Your task to perform on an android device: Go to ESPN.com Image 0: 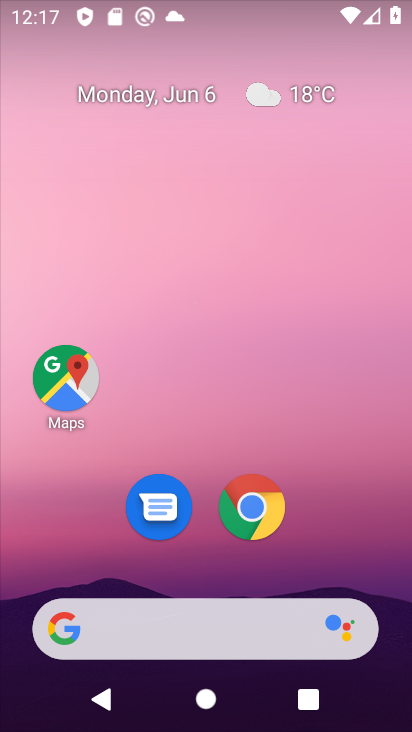
Step 0: click (252, 507)
Your task to perform on an android device: Go to ESPN.com Image 1: 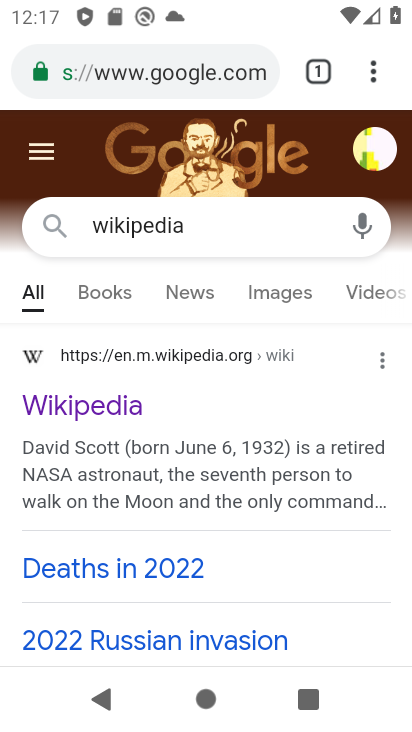
Step 1: click (149, 64)
Your task to perform on an android device: Go to ESPN.com Image 2: 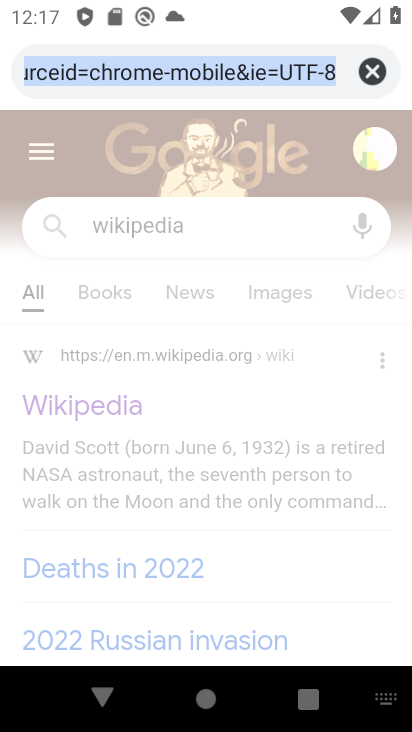
Step 2: type ""
Your task to perform on an android device: Go to ESPN.com Image 3: 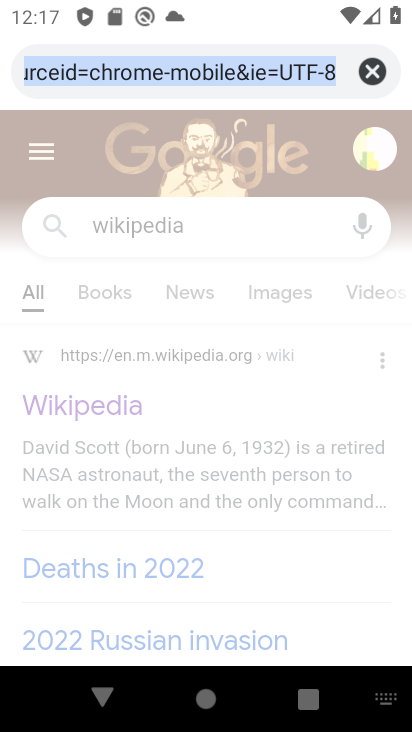
Step 3: type "ESPN.com"
Your task to perform on an android device: Go to ESPN.com Image 4: 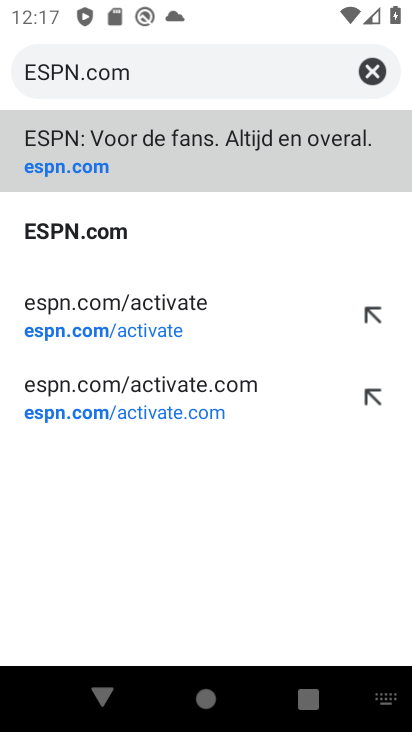
Step 4: click (131, 165)
Your task to perform on an android device: Go to ESPN.com Image 5: 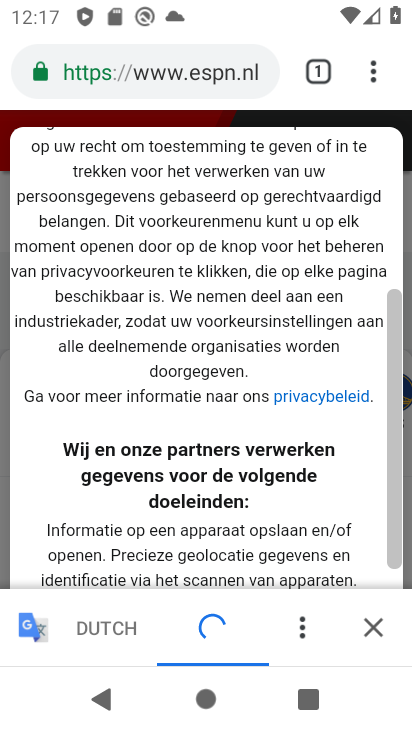
Step 5: task complete